Your task to perform on an android device: see sites visited before in the chrome app Image 0: 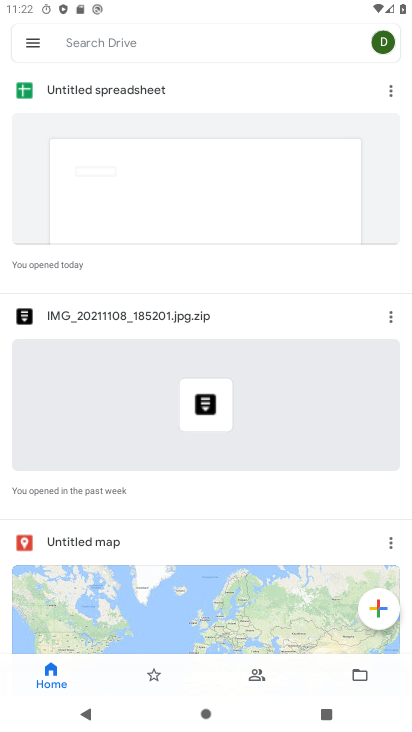
Step 0: press home button
Your task to perform on an android device: see sites visited before in the chrome app Image 1: 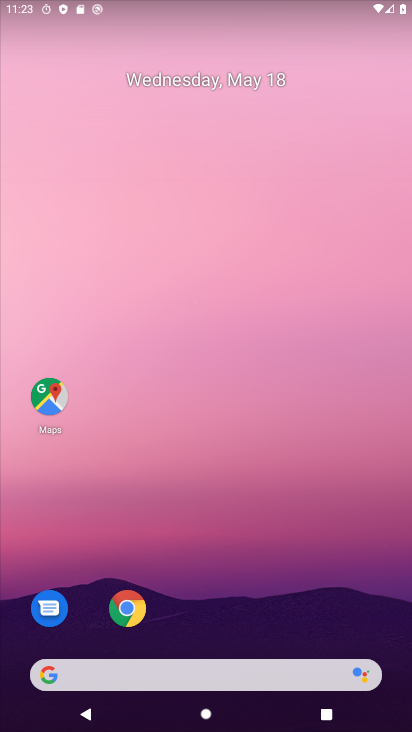
Step 1: drag from (274, 614) to (231, 6)
Your task to perform on an android device: see sites visited before in the chrome app Image 2: 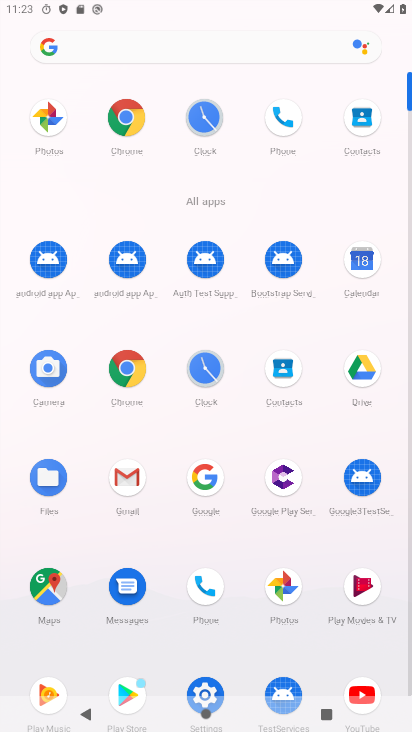
Step 2: click (138, 112)
Your task to perform on an android device: see sites visited before in the chrome app Image 3: 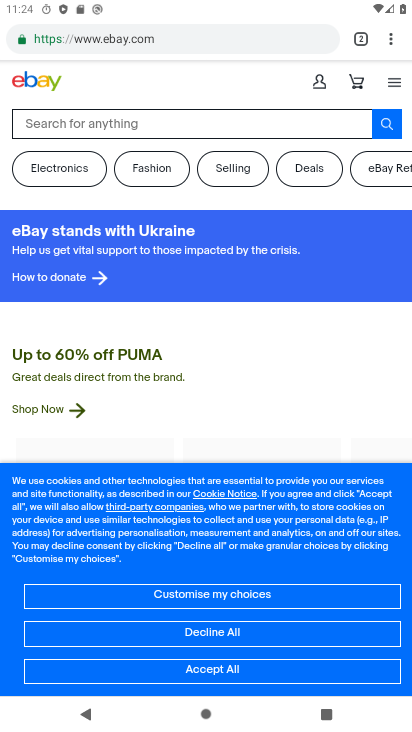
Step 3: click (394, 34)
Your task to perform on an android device: see sites visited before in the chrome app Image 4: 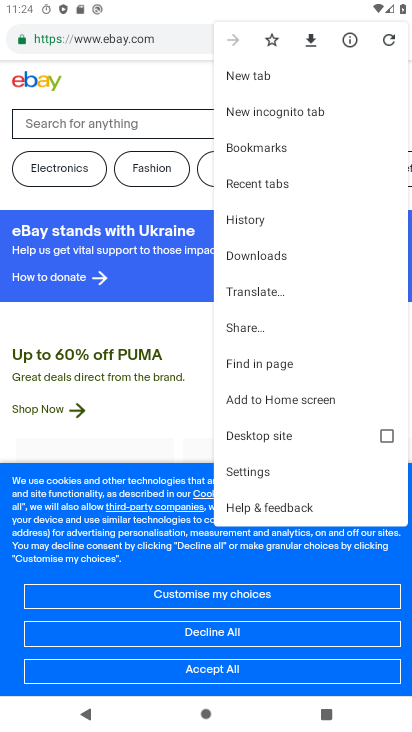
Step 4: click (297, 217)
Your task to perform on an android device: see sites visited before in the chrome app Image 5: 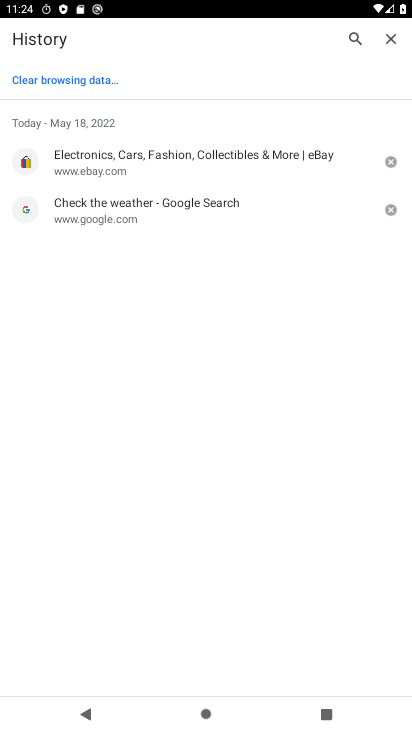
Step 5: task complete